Your task to perform on an android device: Go to sound settings Image 0: 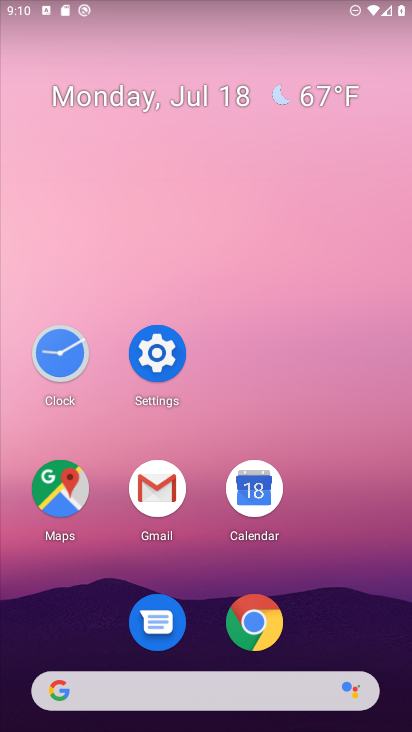
Step 0: click (144, 351)
Your task to perform on an android device: Go to sound settings Image 1: 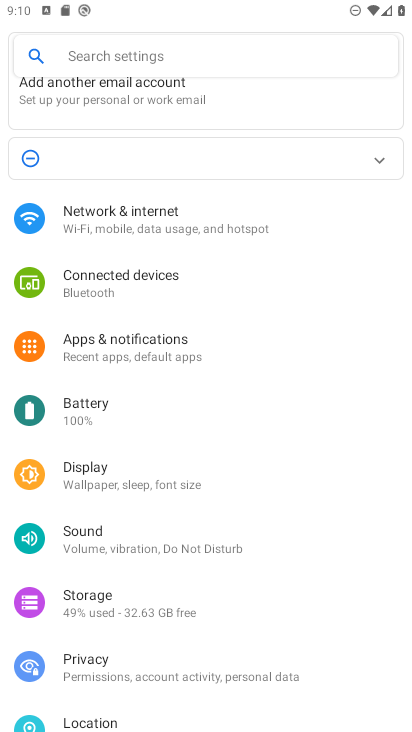
Step 1: click (83, 532)
Your task to perform on an android device: Go to sound settings Image 2: 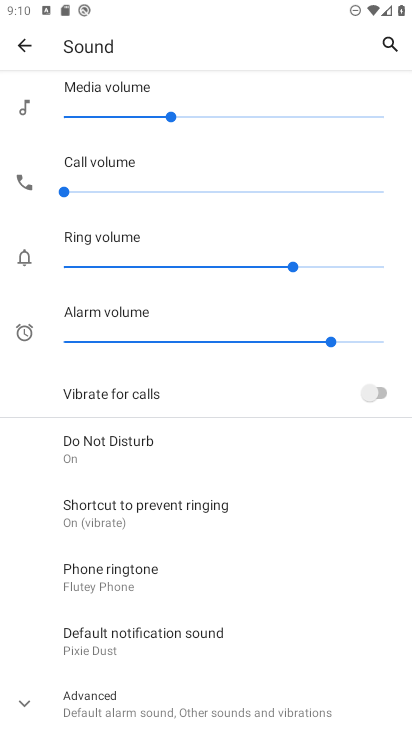
Step 2: task complete